Your task to perform on an android device: Open calendar and show me the first week of next month Image 0: 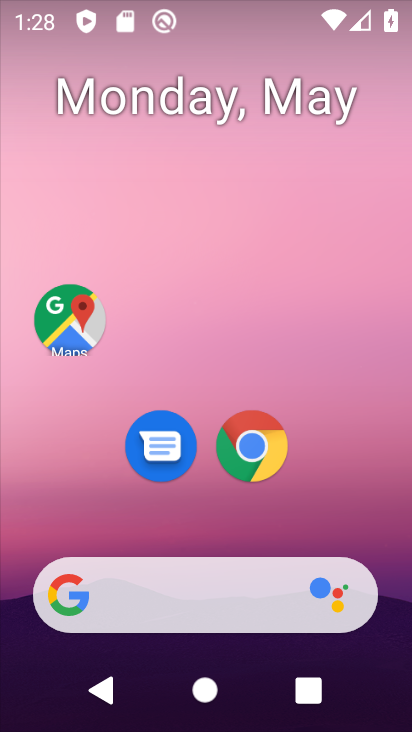
Step 0: drag from (180, 578) to (173, 22)
Your task to perform on an android device: Open calendar and show me the first week of next month Image 1: 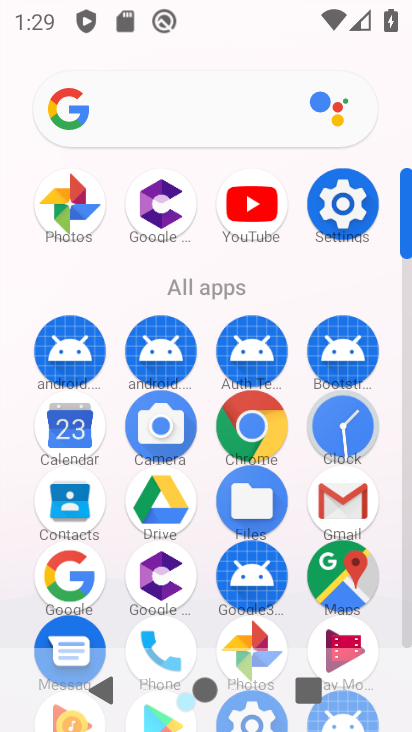
Step 1: click (85, 439)
Your task to perform on an android device: Open calendar and show me the first week of next month Image 2: 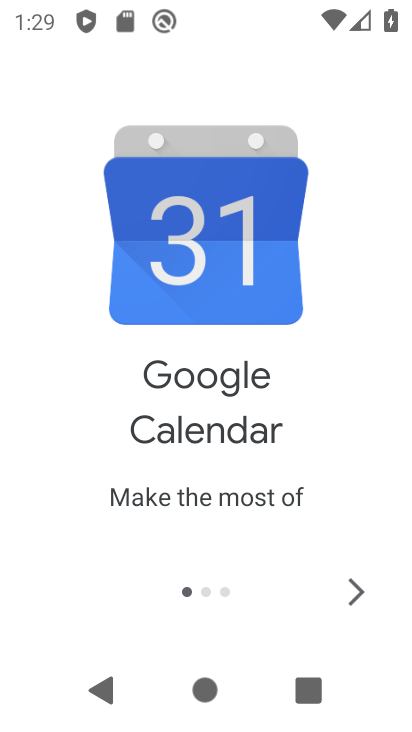
Step 2: click (344, 588)
Your task to perform on an android device: Open calendar and show me the first week of next month Image 3: 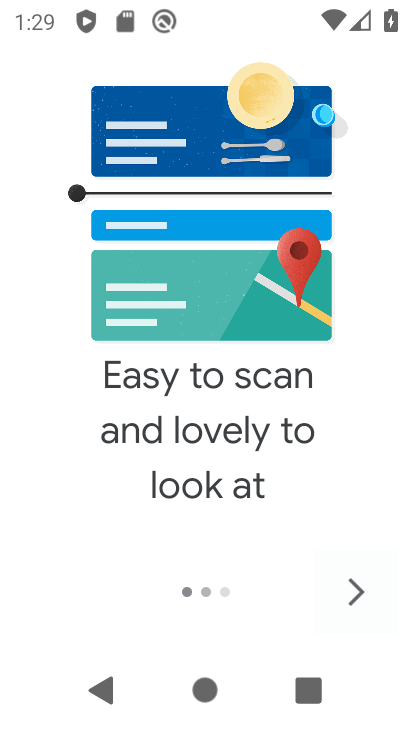
Step 3: click (344, 588)
Your task to perform on an android device: Open calendar and show me the first week of next month Image 4: 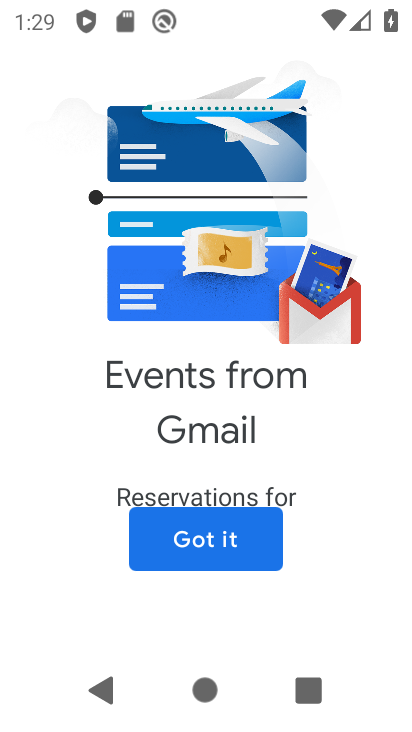
Step 4: click (259, 566)
Your task to perform on an android device: Open calendar and show me the first week of next month Image 5: 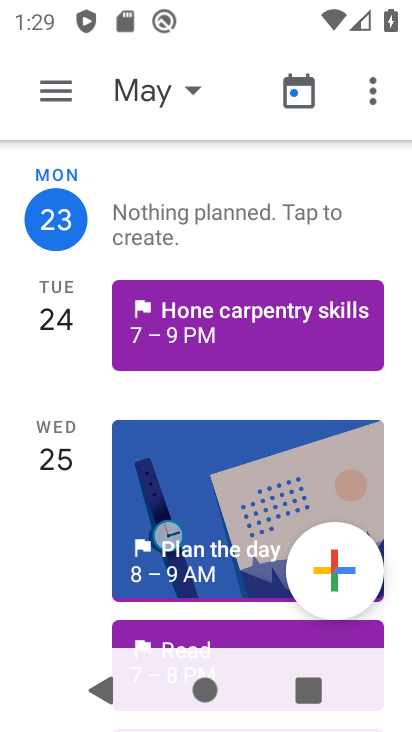
Step 5: click (66, 98)
Your task to perform on an android device: Open calendar and show me the first week of next month Image 6: 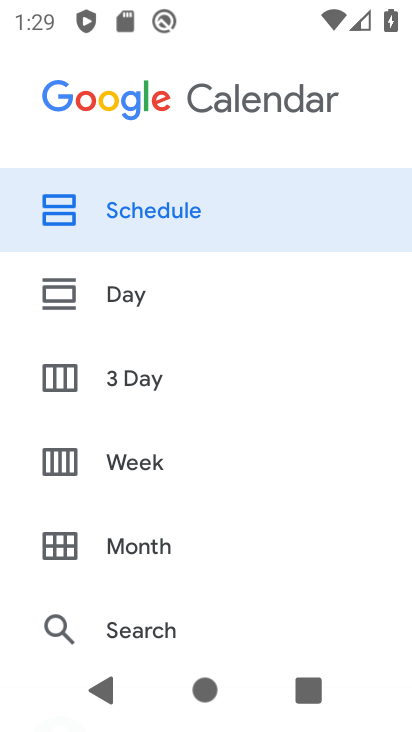
Step 6: click (152, 536)
Your task to perform on an android device: Open calendar and show me the first week of next month Image 7: 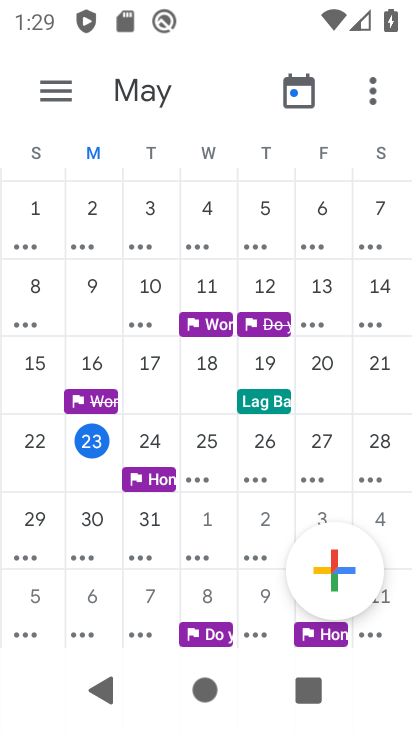
Step 7: task complete